Your task to perform on an android device: Open the web browser Image 0: 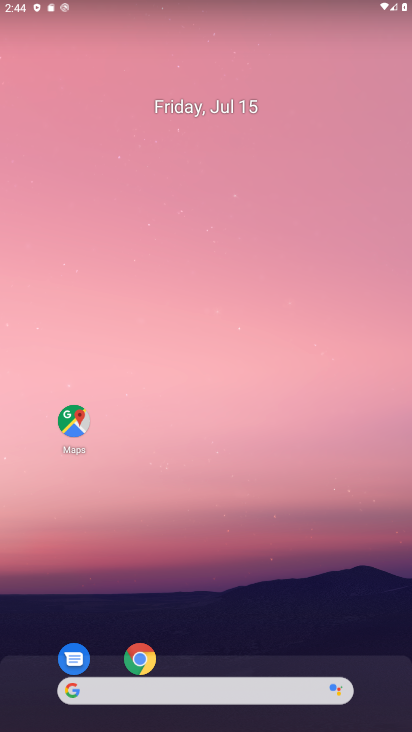
Step 0: click (145, 651)
Your task to perform on an android device: Open the web browser Image 1: 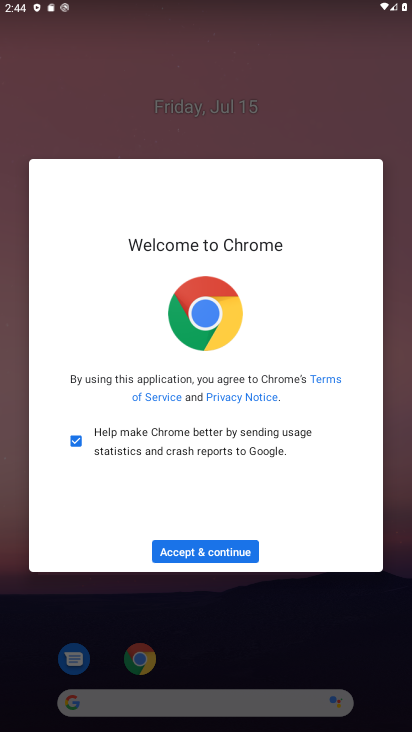
Step 1: click (182, 555)
Your task to perform on an android device: Open the web browser Image 2: 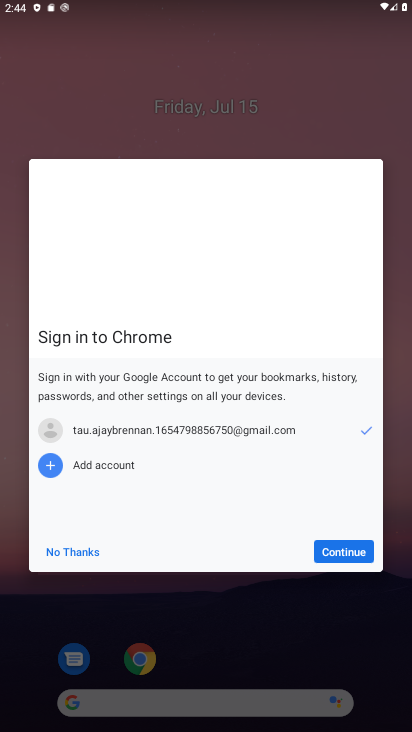
Step 2: click (327, 554)
Your task to perform on an android device: Open the web browser Image 3: 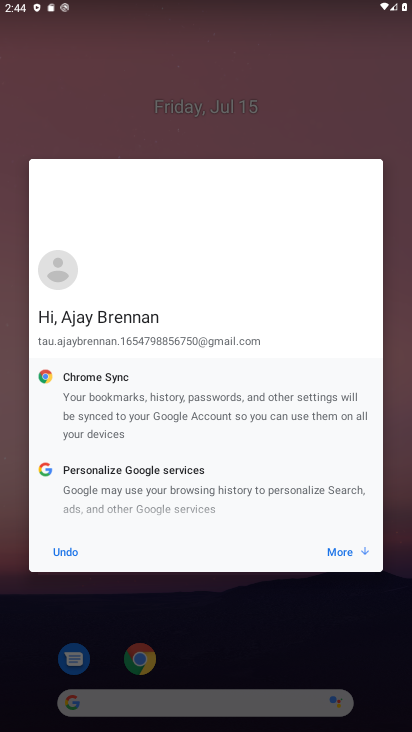
Step 3: click (326, 552)
Your task to perform on an android device: Open the web browser Image 4: 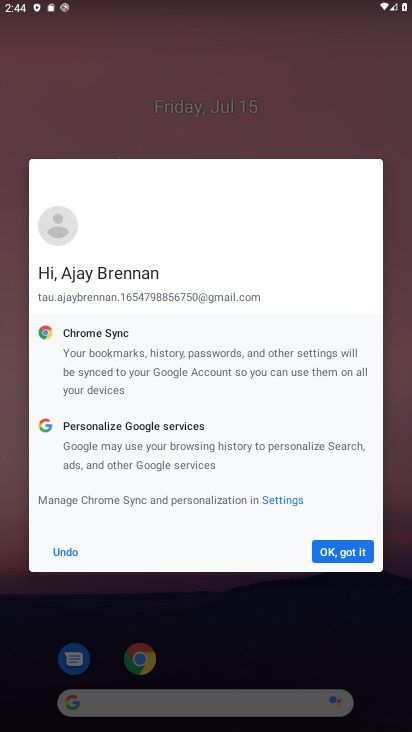
Step 4: click (326, 551)
Your task to perform on an android device: Open the web browser Image 5: 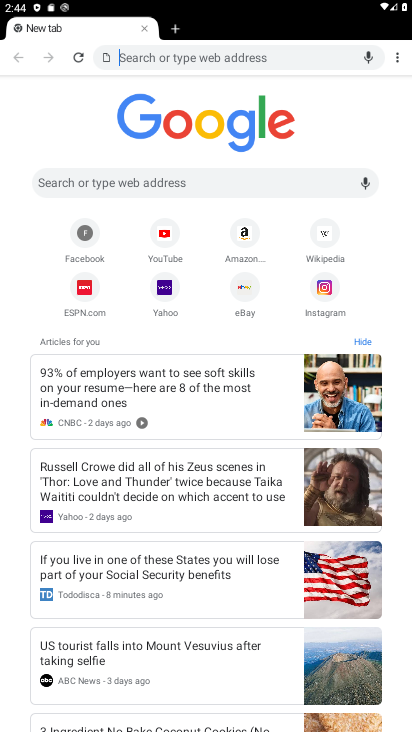
Step 5: task complete